Your task to perform on an android device: see tabs open on other devices in the chrome app Image 0: 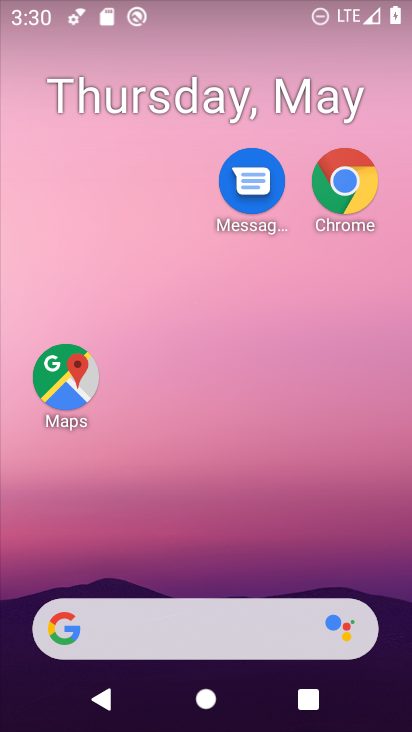
Step 0: drag from (146, 611) to (11, 85)
Your task to perform on an android device: see tabs open on other devices in the chrome app Image 1: 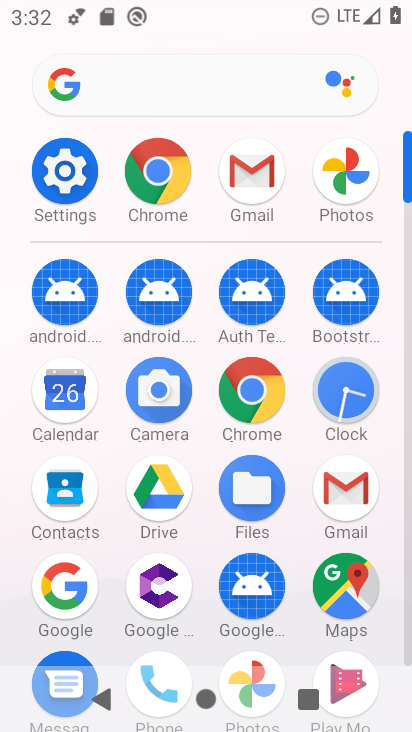
Step 1: click (226, 397)
Your task to perform on an android device: see tabs open on other devices in the chrome app Image 2: 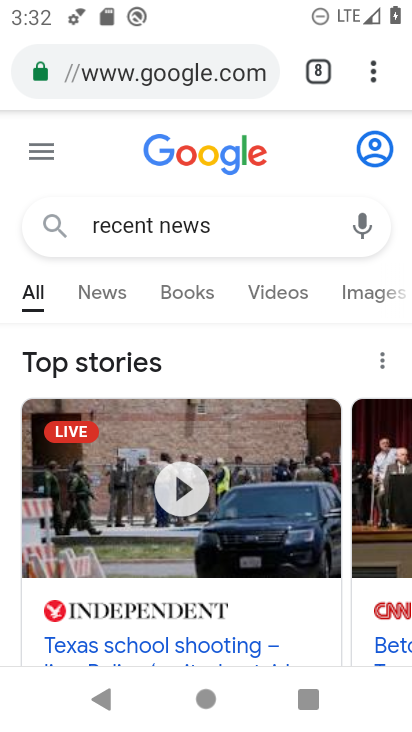
Step 2: task complete